Your task to perform on an android device: Search for Italian restaurants on Maps Image 0: 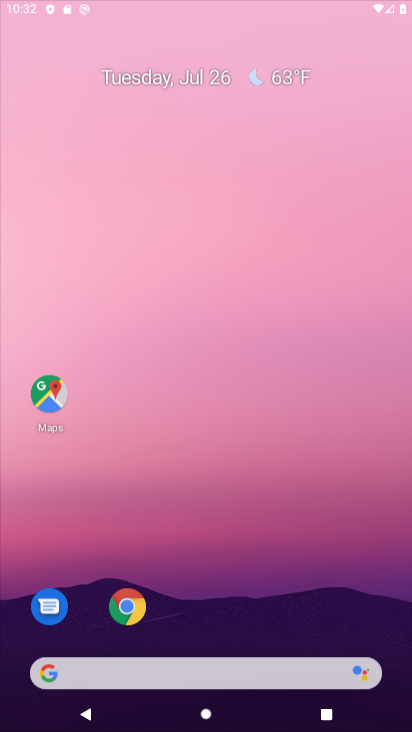
Step 0: press home button
Your task to perform on an android device: Search for Italian restaurants on Maps Image 1: 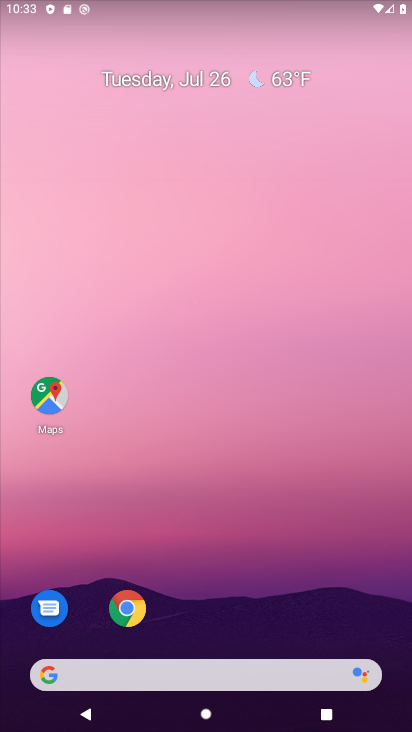
Step 1: drag from (214, 636) to (171, 67)
Your task to perform on an android device: Search for Italian restaurants on Maps Image 2: 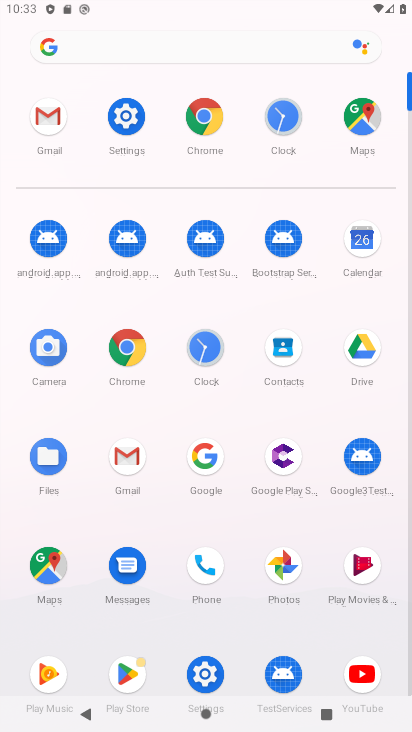
Step 2: click (367, 116)
Your task to perform on an android device: Search for Italian restaurants on Maps Image 3: 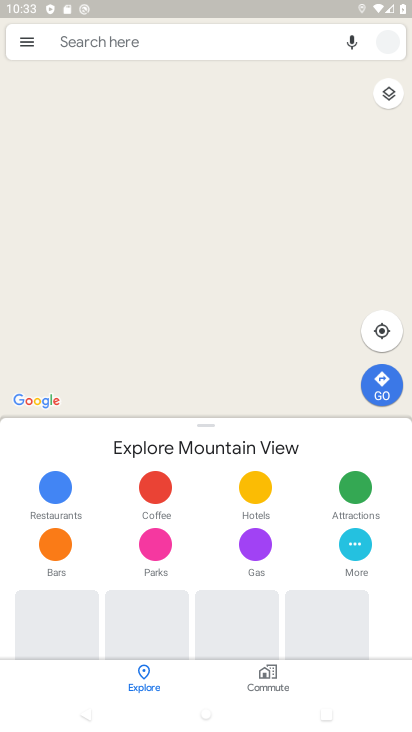
Step 3: click (148, 41)
Your task to perform on an android device: Search for Italian restaurants on Maps Image 4: 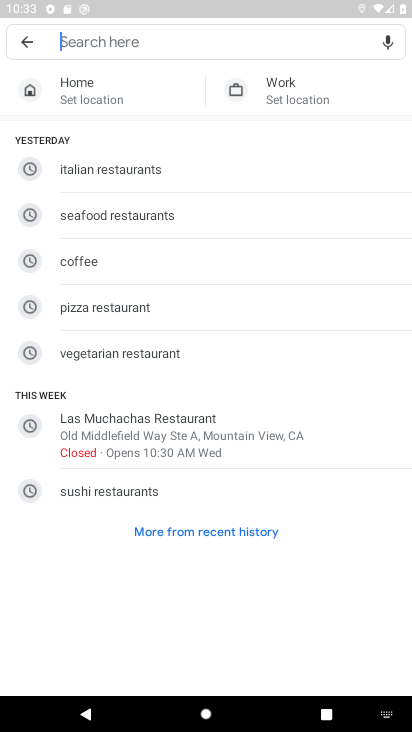
Step 4: click (105, 174)
Your task to perform on an android device: Search for Italian restaurants on Maps Image 5: 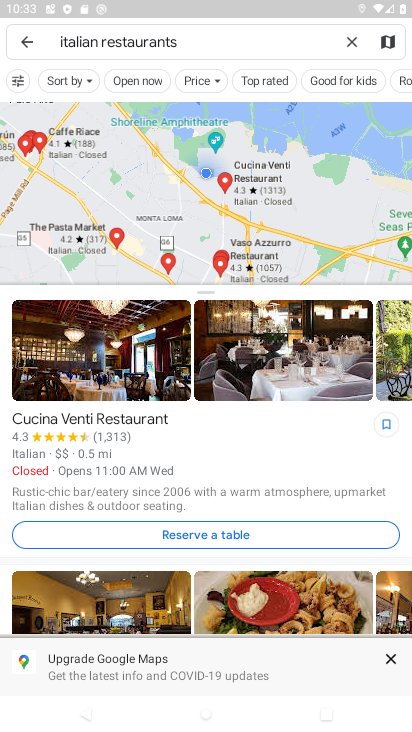
Step 5: task complete